Your task to perform on an android device: toggle wifi Image 0: 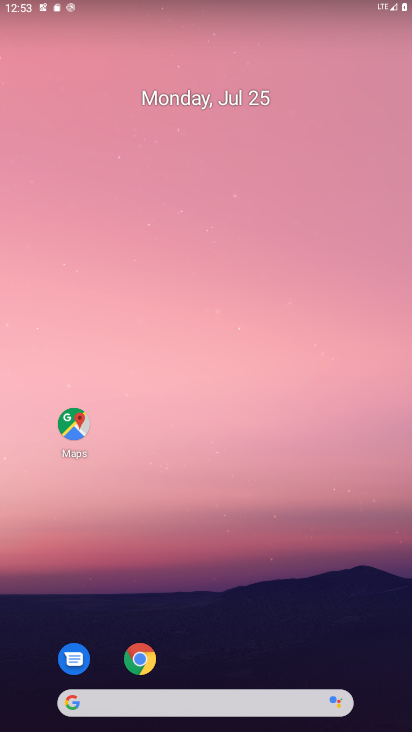
Step 0: drag from (213, 667) to (272, 28)
Your task to perform on an android device: toggle wifi Image 1: 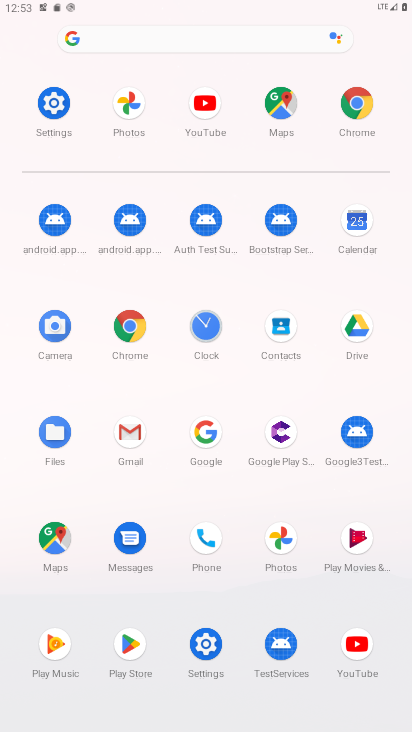
Step 1: drag from (172, 11) to (144, 435)
Your task to perform on an android device: toggle wifi Image 2: 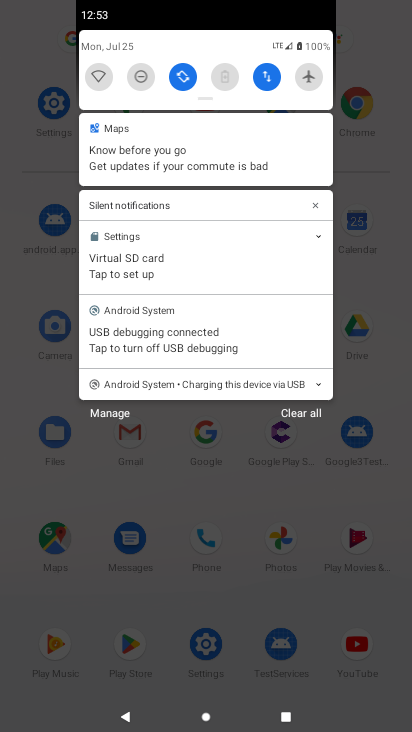
Step 2: click (98, 69)
Your task to perform on an android device: toggle wifi Image 3: 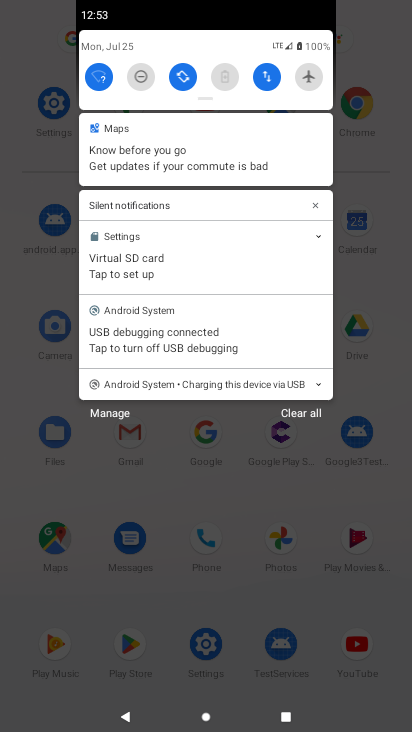
Step 3: task complete